Your task to perform on an android device: change text size in settings app Image 0: 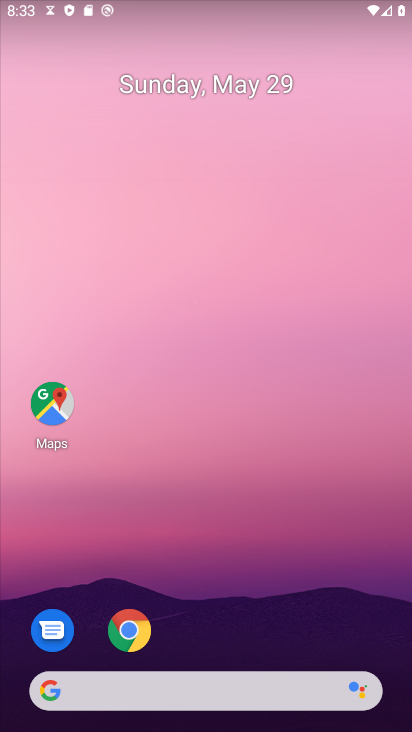
Step 0: drag from (254, 620) to (285, 12)
Your task to perform on an android device: change text size in settings app Image 1: 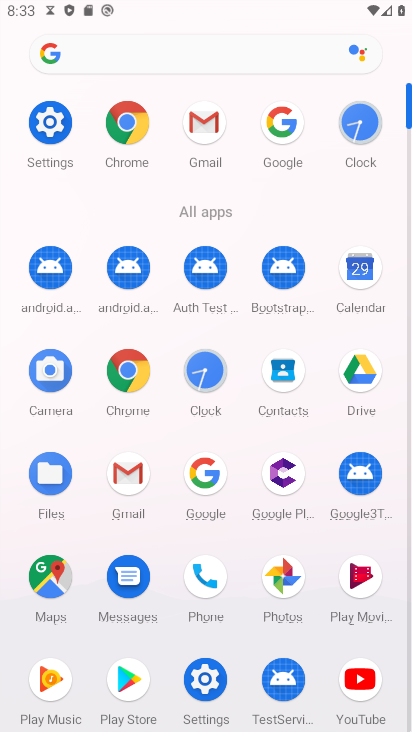
Step 1: click (56, 112)
Your task to perform on an android device: change text size in settings app Image 2: 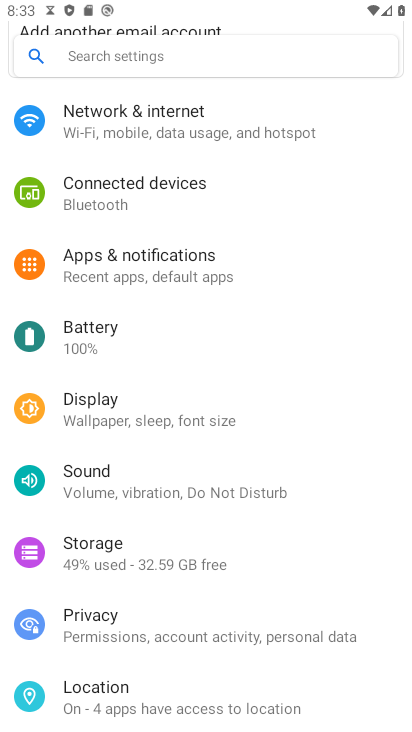
Step 2: click (138, 420)
Your task to perform on an android device: change text size in settings app Image 3: 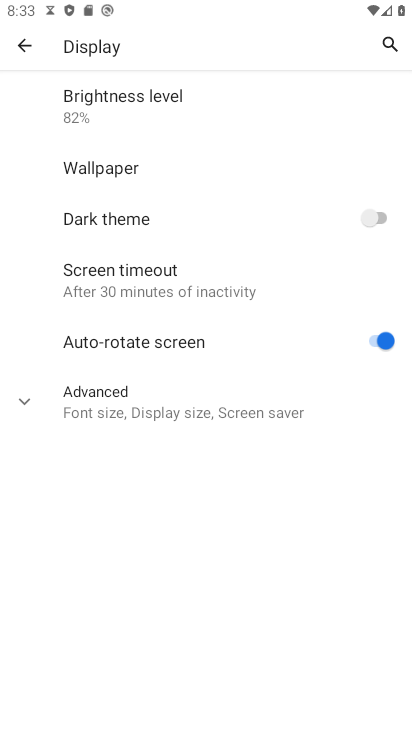
Step 3: click (140, 406)
Your task to perform on an android device: change text size in settings app Image 4: 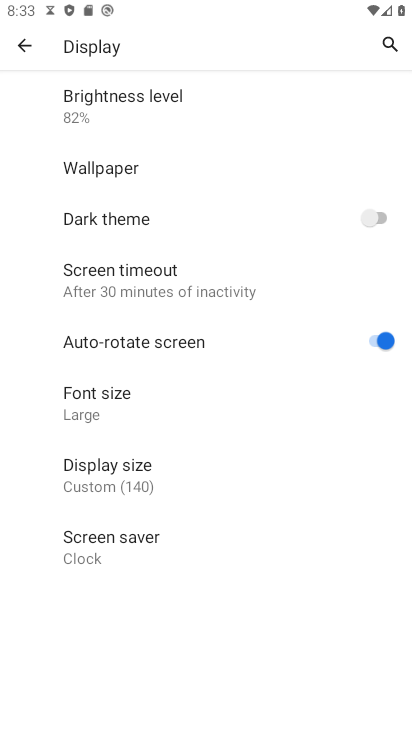
Step 4: click (140, 406)
Your task to perform on an android device: change text size in settings app Image 5: 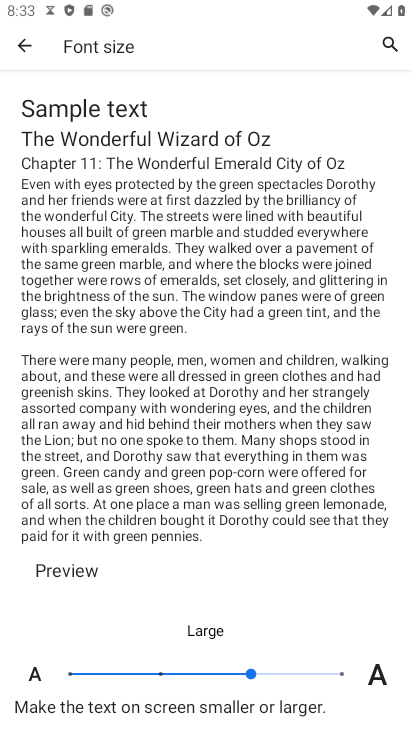
Step 5: click (162, 674)
Your task to perform on an android device: change text size in settings app Image 6: 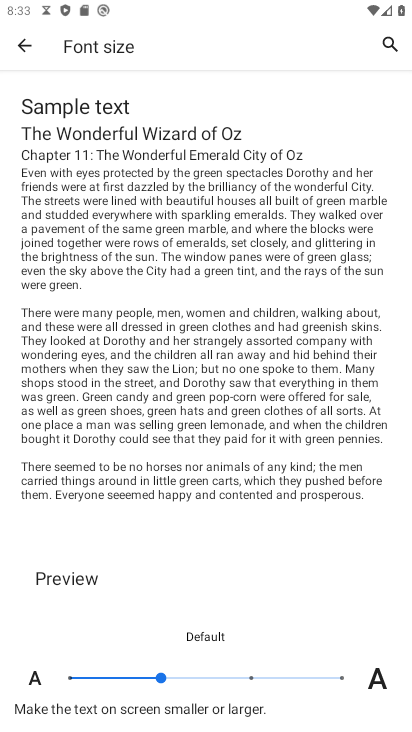
Step 6: task complete